Your task to perform on an android device: move a message to another label in the gmail app Image 0: 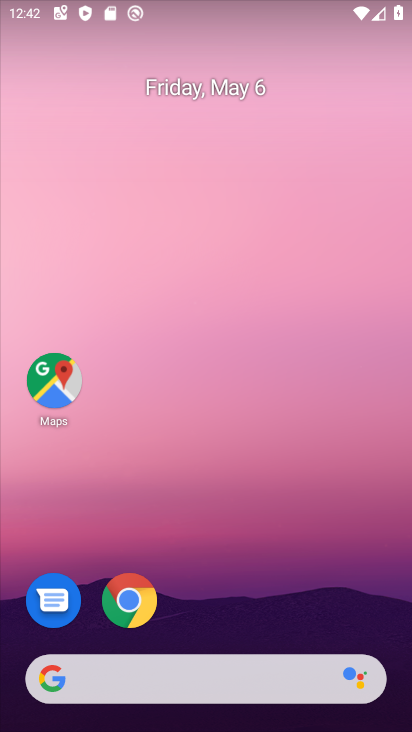
Step 0: drag from (316, 616) to (320, 81)
Your task to perform on an android device: move a message to another label in the gmail app Image 1: 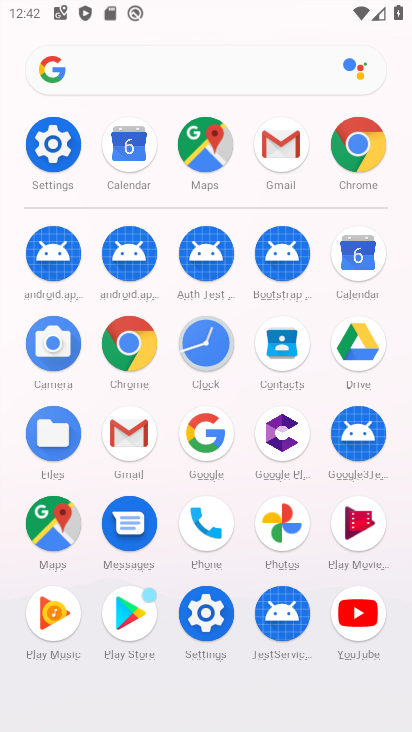
Step 1: click (130, 435)
Your task to perform on an android device: move a message to another label in the gmail app Image 2: 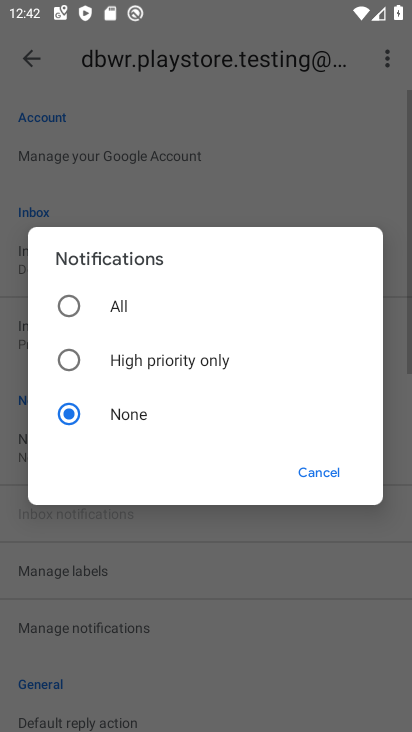
Step 2: click (323, 482)
Your task to perform on an android device: move a message to another label in the gmail app Image 3: 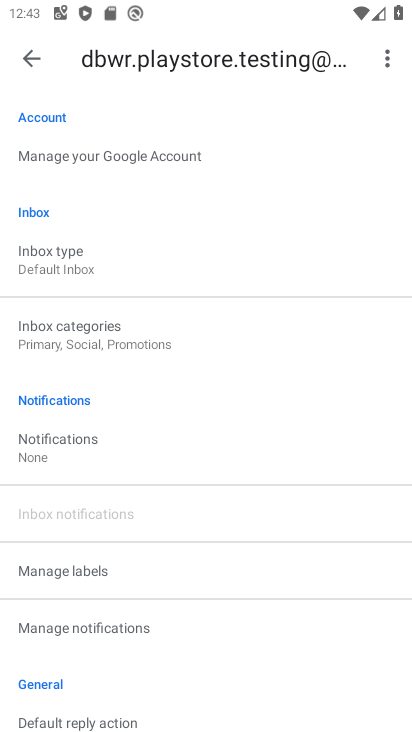
Step 3: click (30, 66)
Your task to perform on an android device: move a message to another label in the gmail app Image 4: 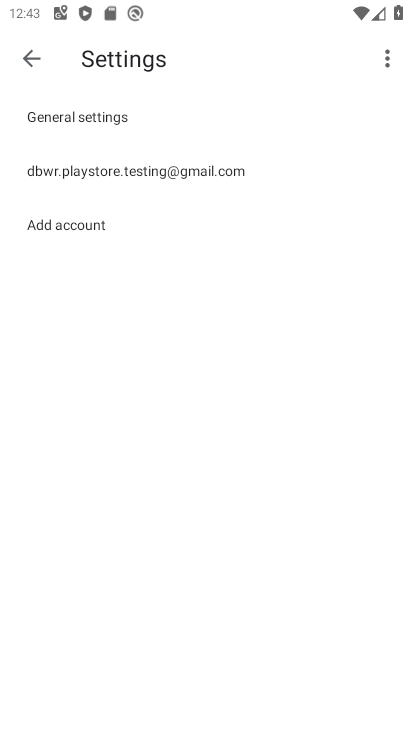
Step 4: press back button
Your task to perform on an android device: move a message to another label in the gmail app Image 5: 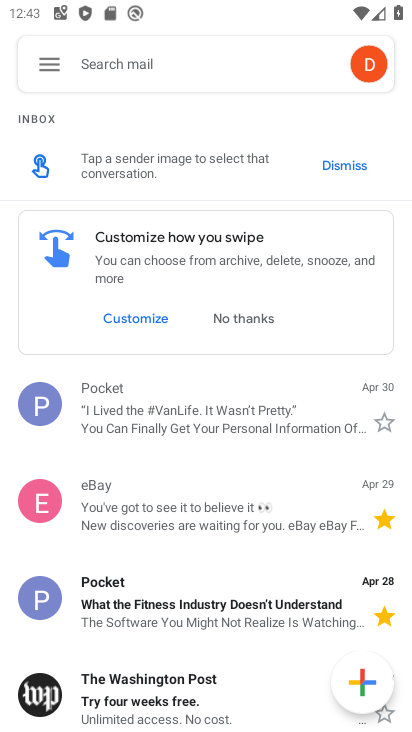
Step 5: click (121, 411)
Your task to perform on an android device: move a message to another label in the gmail app Image 6: 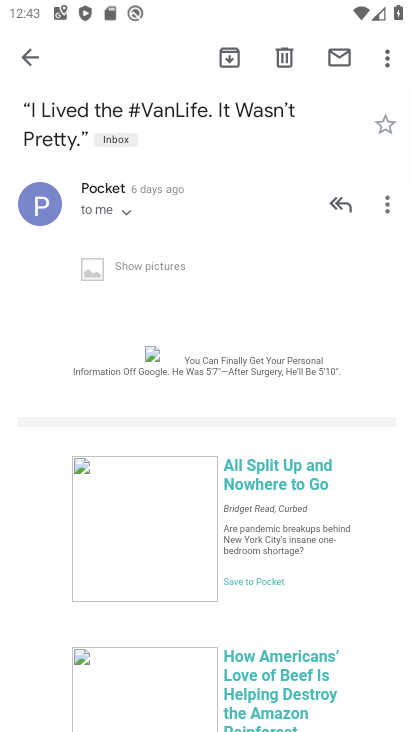
Step 6: click (387, 56)
Your task to perform on an android device: move a message to another label in the gmail app Image 7: 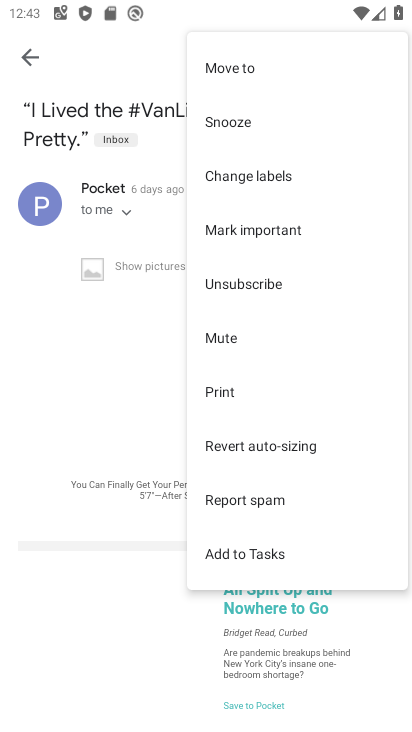
Step 7: click (361, 62)
Your task to perform on an android device: move a message to another label in the gmail app Image 8: 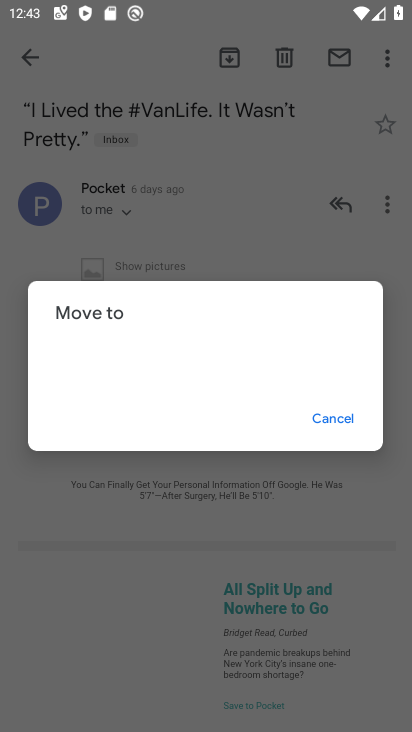
Step 8: task complete